Your task to perform on an android device: turn vacation reply on in the gmail app Image 0: 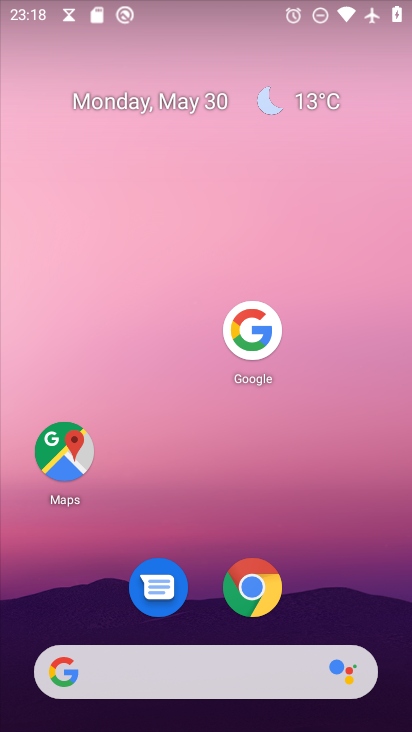
Step 0: drag from (130, 678) to (265, 76)
Your task to perform on an android device: turn vacation reply on in the gmail app Image 1: 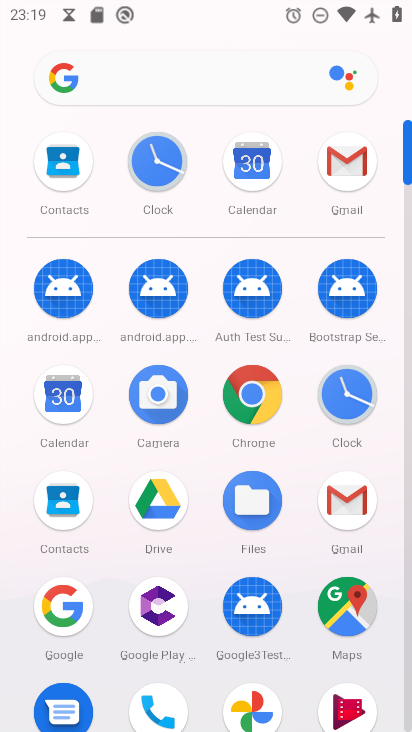
Step 1: click (345, 179)
Your task to perform on an android device: turn vacation reply on in the gmail app Image 2: 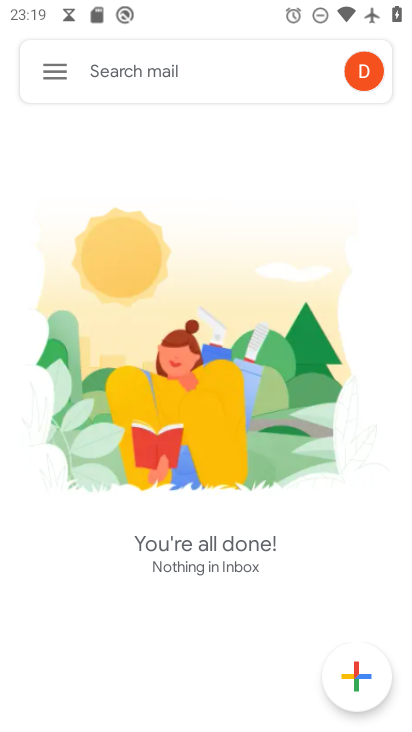
Step 2: click (56, 67)
Your task to perform on an android device: turn vacation reply on in the gmail app Image 3: 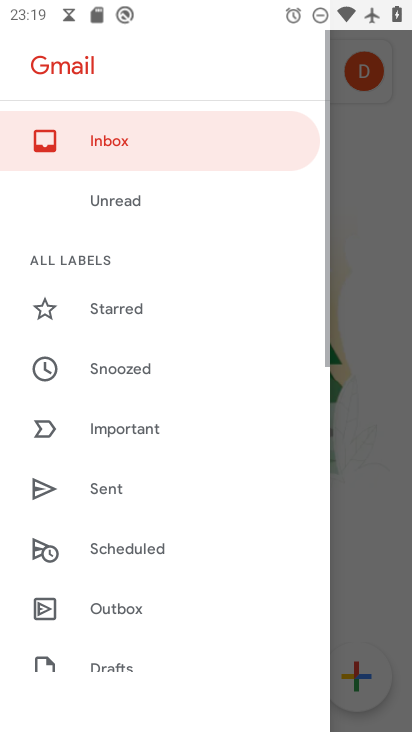
Step 3: drag from (172, 549) to (240, 90)
Your task to perform on an android device: turn vacation reply on in the gmail app Image 4: 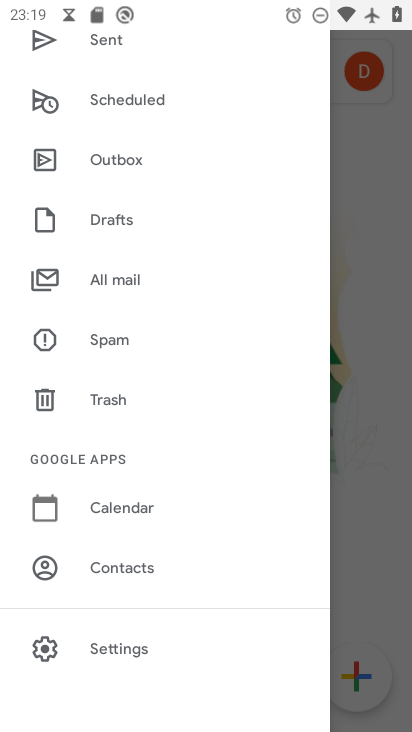
Step 4: click (134, 643)
Your task to perform on an android device: turn vacation reply on in the gmail app Image 5: 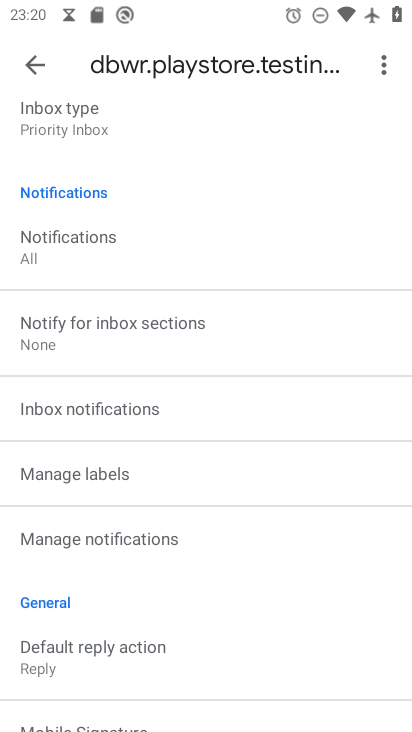
Step 5: drag from (175, 605) to (357, 15)
Your task to perform on an android device: turn vacation reply on in the gmail app Image 6: 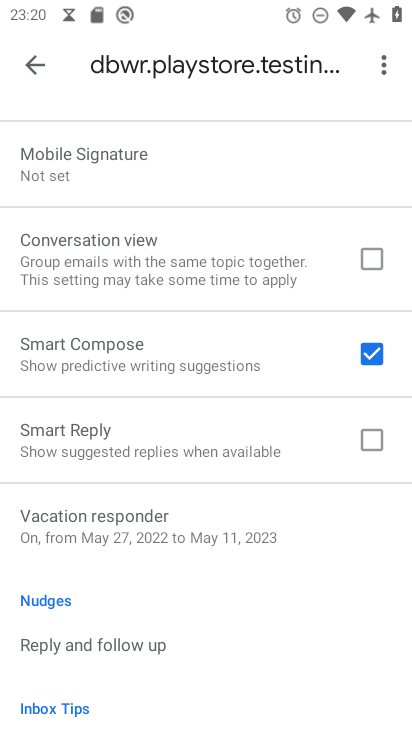
Step 6: drag from (191, 627) to (356, 29)
Your task to perform on an android device: turn vacation reply on in the gmail app Image 7: 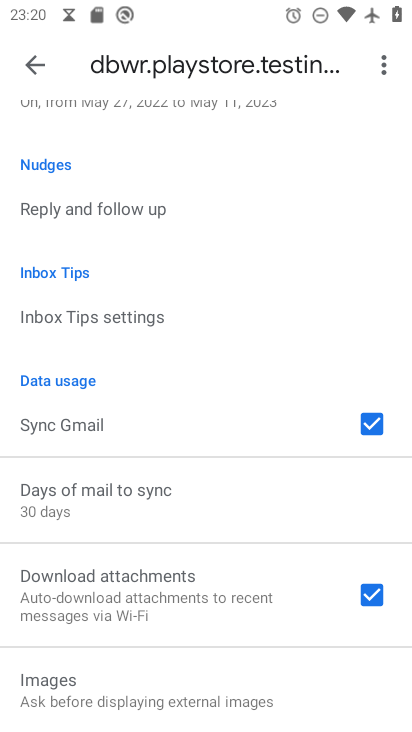
Step 7: drag from (265, 156) to (194, 599)
Your task to perform on an android device: turn vacation reply on in the gmail app Image 8: 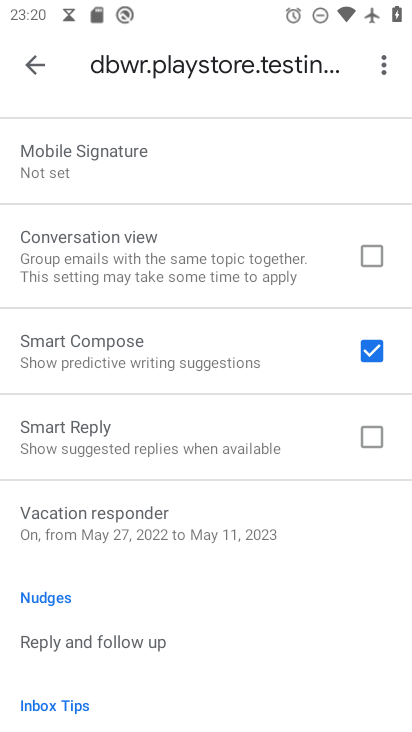
Step 8: click (56, 510)
Your task to perform on an android device: turn vacation reply on in the gmail app Image 9: 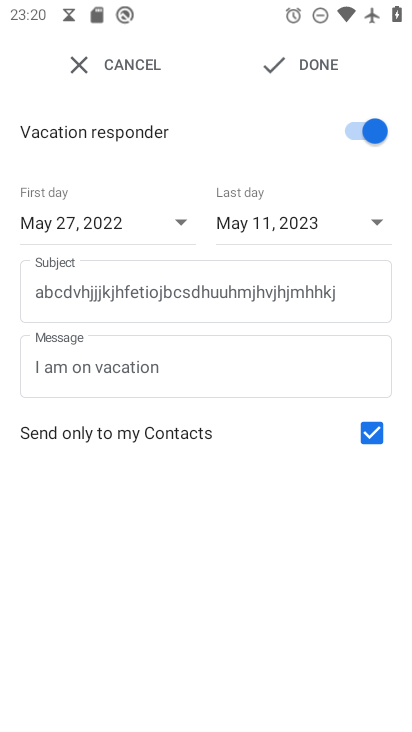
Step 9: task complete